Your task to perform on an android device: Open calendar and show me the first week of next month Image 0: 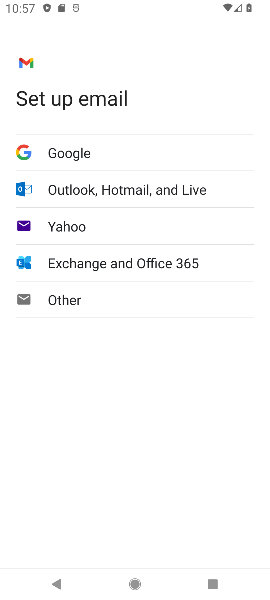
Step 0: press back button
Your task to perform on an android device: Open calendar and show me the first week of next month Image 1: 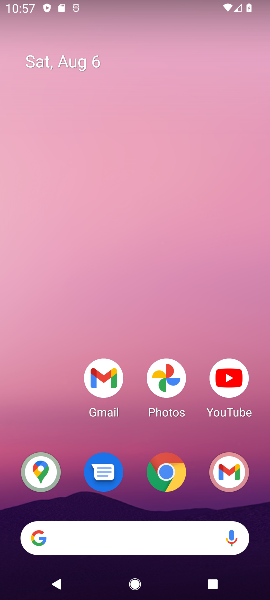
Step 1: drag from (161, 458) to (119, 106)
Your task to perform on an android device: Open calendar and show me the first week of next month Image 2: 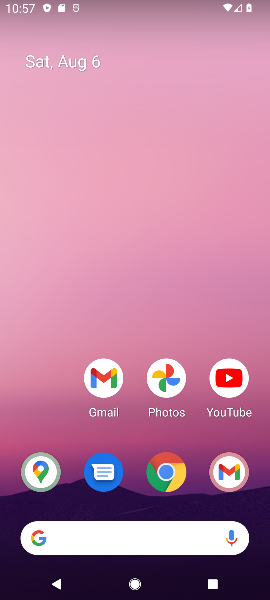
Step 2: click (97, 43)
Your task to perform on an android device: Open calendar and show me the first week of next month Image 3: 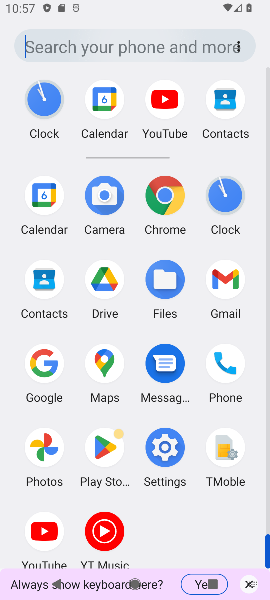
Step 3: drag from (120, 458) to (85, 48)
Your task to perform on an android device: Open calendar and show me the first week of next month Image 4: 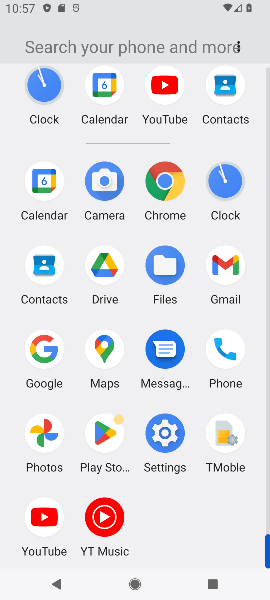
Step 4: click (48, 175)
Your task to perform on an android device: Open calendar and show me the first week of next month Image 5: 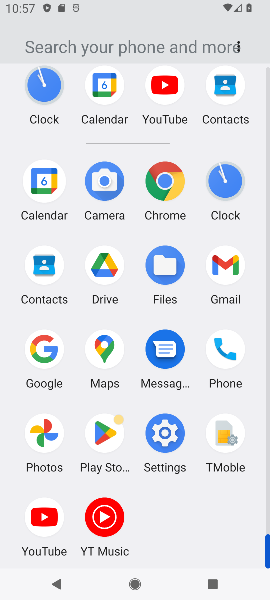
Step 5: click (47, 180)
Your task to perform on an android device: Open calendar and show me the first week of next month Image 6: 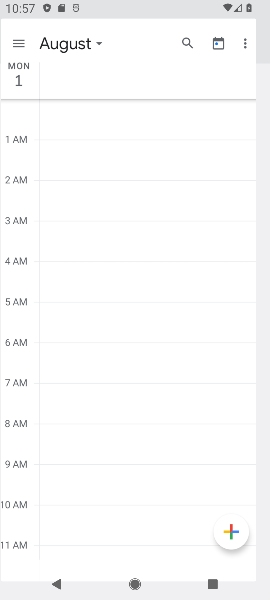
Step 6: click (47, 181)
Your task to perform on an android device: Open calendar and show me the first week of next month Image 7: 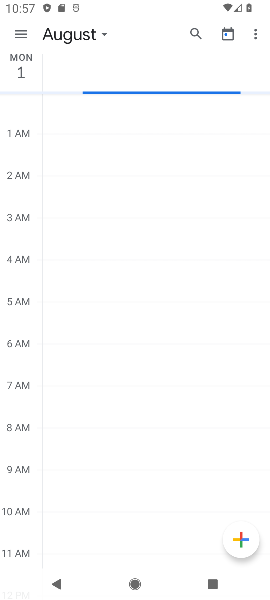
Step 7: click (47, 186)
Your task to perform on an android device: Open calendar and show me the first week of next month Image 8: 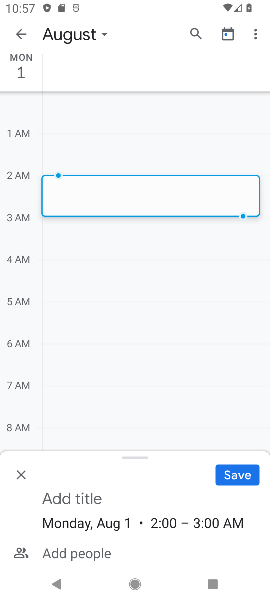
Step 8: click (90, 32)
Your task to perform on an android device: Open calendar and show me the first week of next month Image 9: 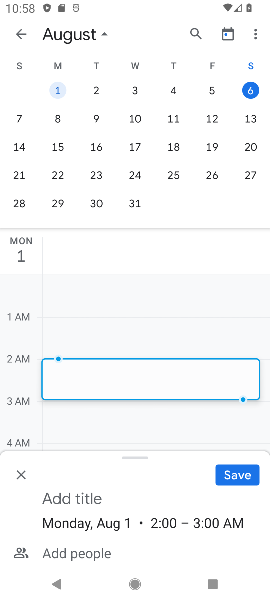
Step 9: task complete